Your task to perform on an android device: turn off translation in the chrome app Image 0: 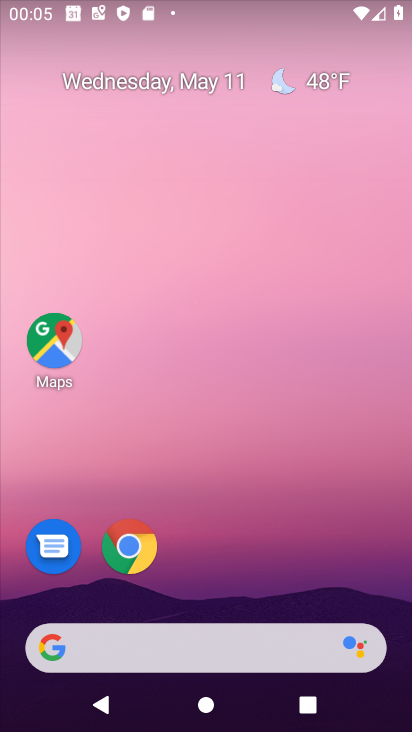
Step 0: click (151, 547)
Your task to perform on an android device: turn off translation in the chrome app Image 1: 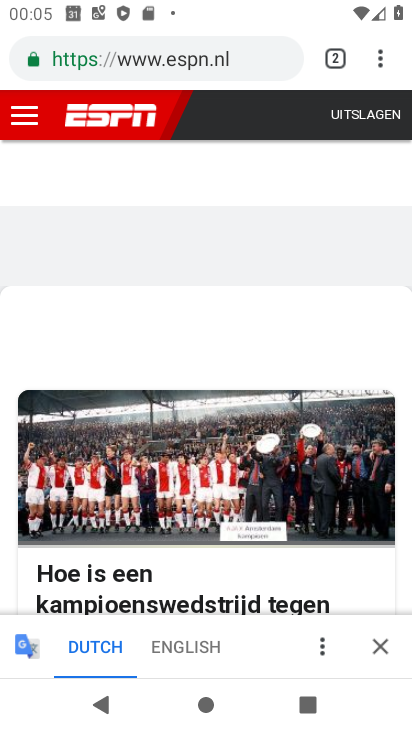
Step 1: click (378, 55)
Your task to perform on an android device: turn off translation in the chrome app Image 2: 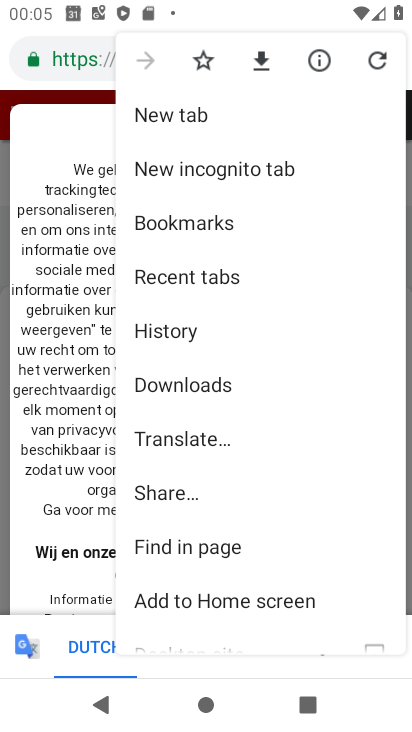
Step 2: drag from (217, 581) to (267, 311)
Your task to perform on an android device: turn off translation in the chrome app Image 3: 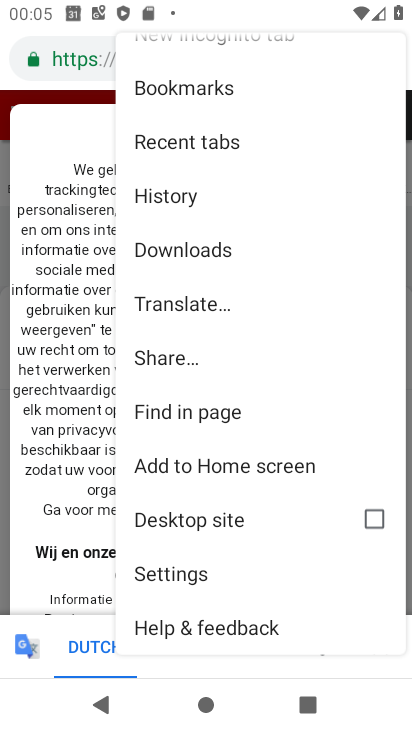
Step 3: click (196, 563)
Your task to perform on an android device: turn off translation in the chrome app Image 4: 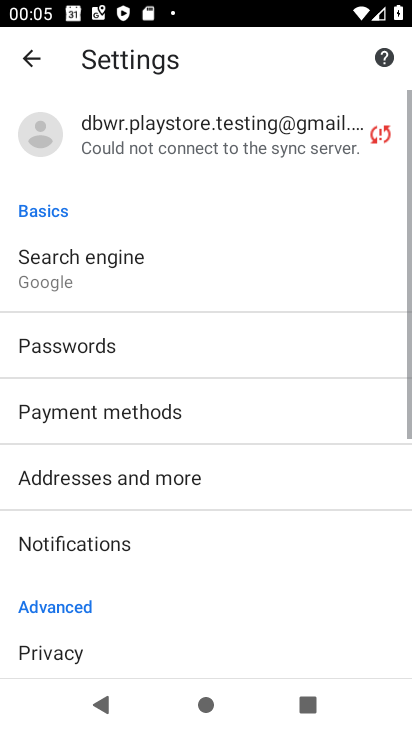
Step 4: drag from (141, 606) to (190, 363)
Your task to perform on an android device: turn off translation in the chrome app Image 5: 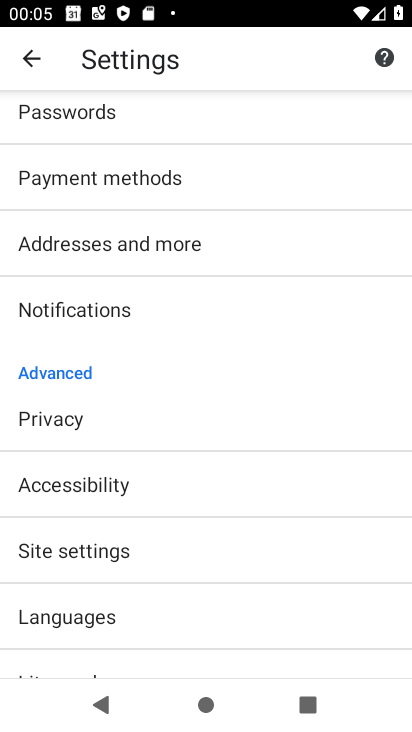
Step 5: click (106, 603)
Your task to perform on an android device: turn off translation in the chrome app Image 6: 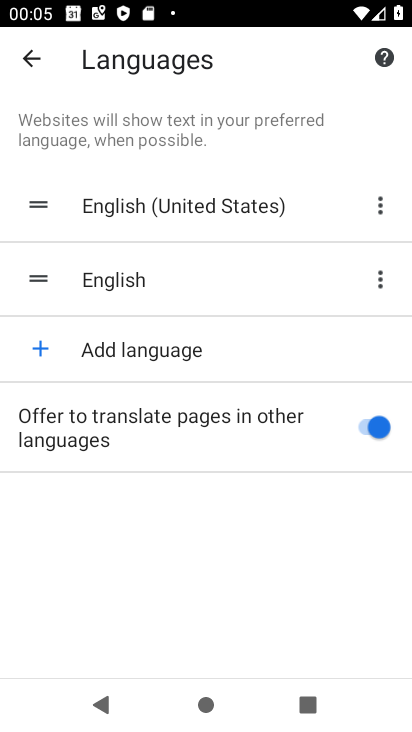
Step 6: click (358, 424)
Your task to perform on an android device: turn off translation in the chrome app Image 7: 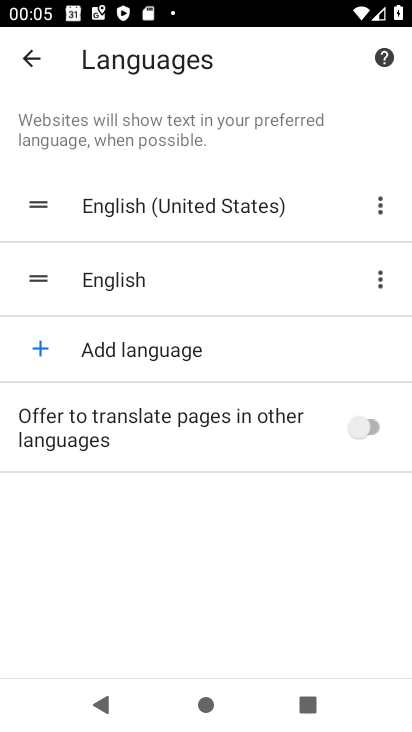
Step 7: task complete